Your task to perform on an android device: Search for seafood restaurants on Google Maps Image 0: 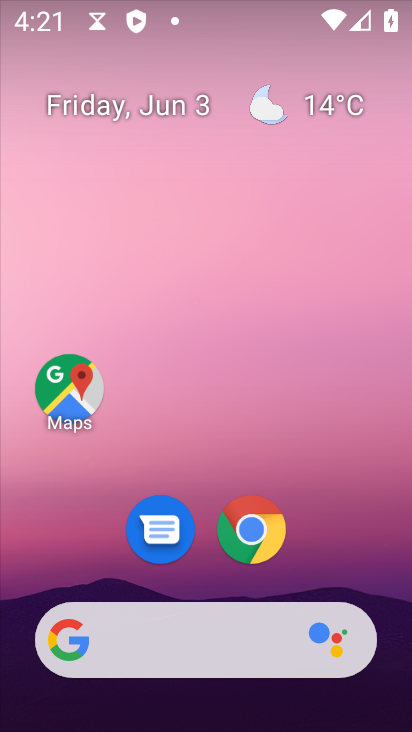
Step 0: drag from (330, 541) to (307, 59)
Your task to perform on an android device: Search for seafood restaurants on Google Maps Image 1: 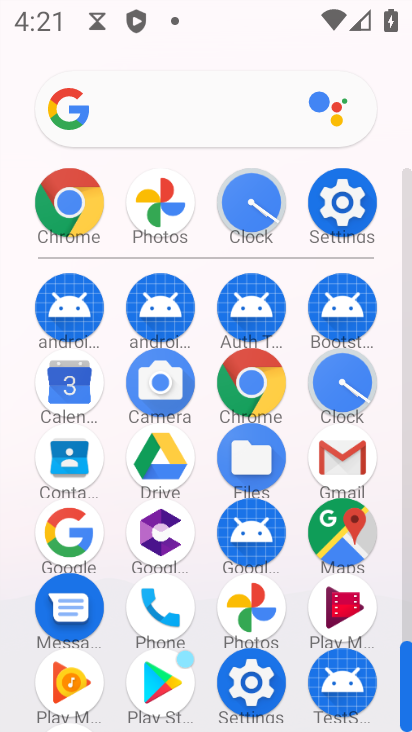
Step 1: click (346, 548)
Your task to perform on an android device: Search for seafood restaurants on Google Maps Image 2: 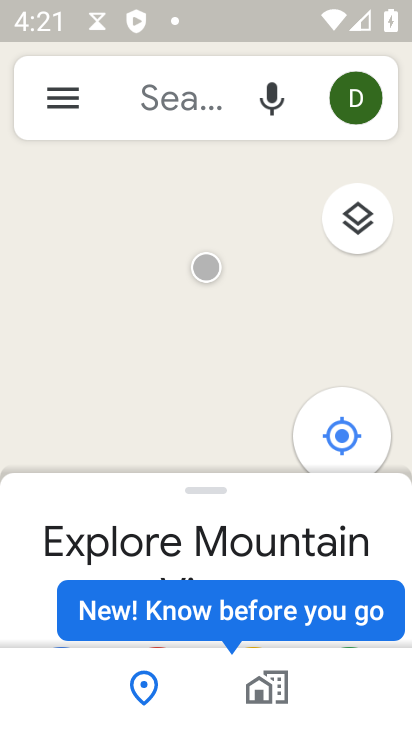
Step 2: click (194, 107)
Your task to perform on an android device: Search for seafood restaurants on Google Maps Image 3: 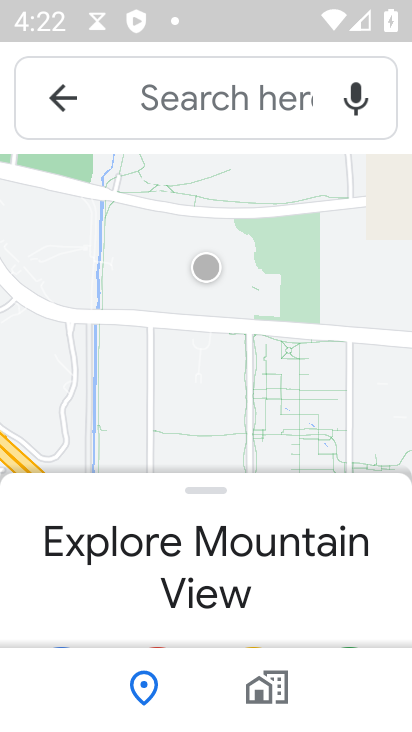
Step 3: click (163, 98)
Your task to perform on an android device: Search for seafood restaurants on Google Maps Image 4: 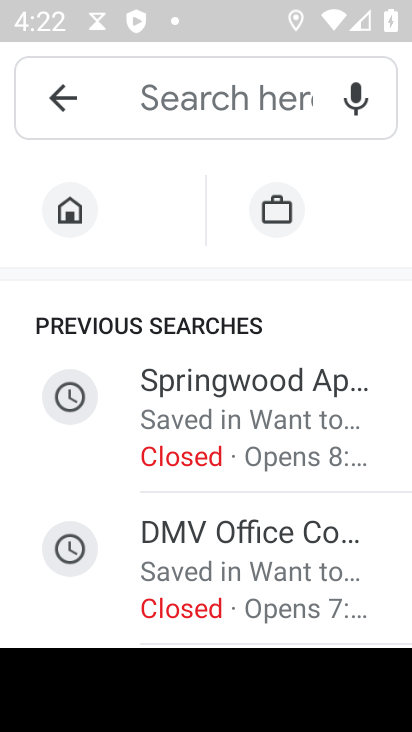
Step 4: type "Seafood resturents"
Your task to perform on an android device: Search for seafood restaurants on Google Maps Image 5: 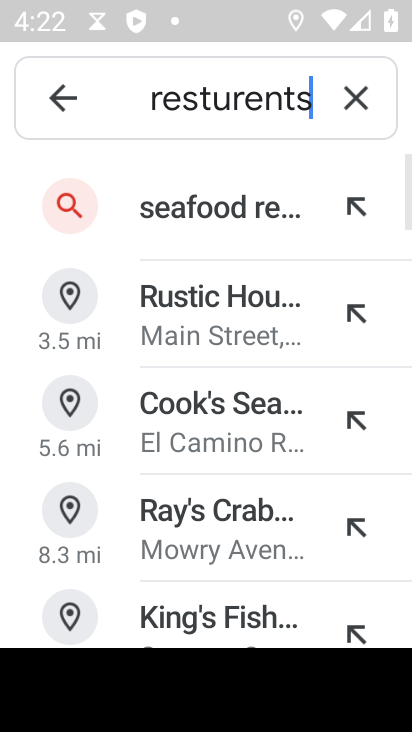
Step 5: click (223, 203)
Your task to perform on an android device: Search for seafood restaurants on Google Maps Image 6: 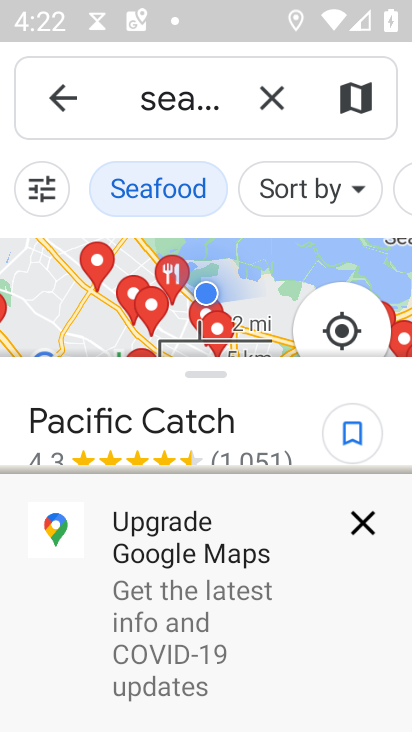
Step 6: task complete